Your task to perform on an android device: empty trash in the gmail app Image 0: 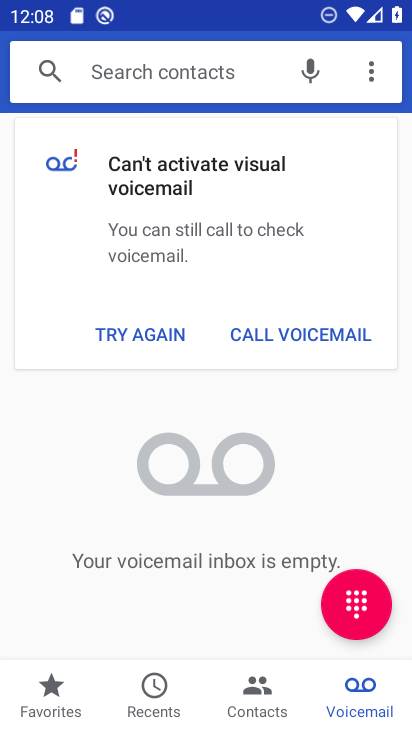
Step 0: press home button
Your task to perform on an android device: empty trash in the gmail app Image 1: 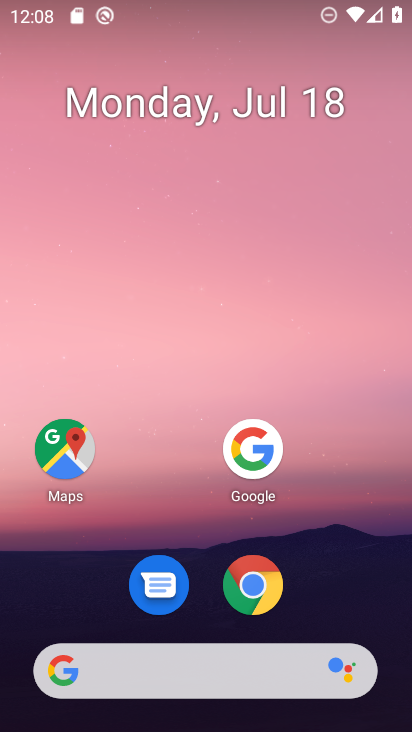
Step 1: drag from (212, 682) to (372, 31)
Your task to perform on an android device: empty trash in the gmail app Image 2: 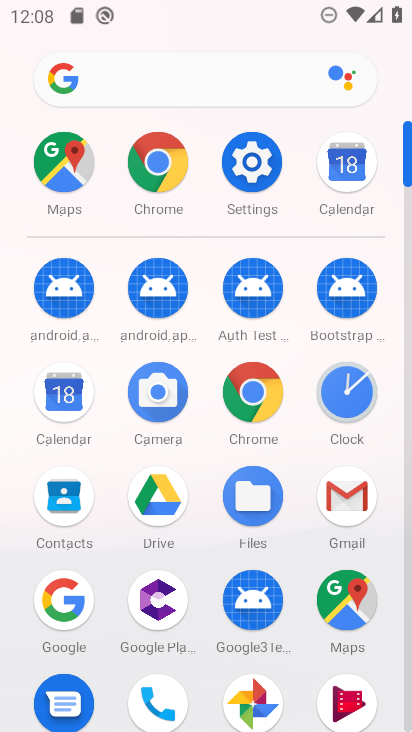
Step 2: click (360, 511)
Your task to perform on an android device: empty trash in the gmail app Image 3: 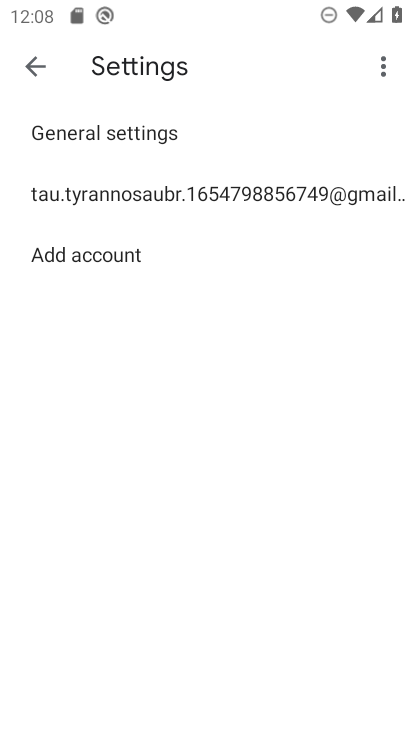
Step 3: click (25, 62)
Your task to perform on an android device: empty trash in the gmail app Image 4: 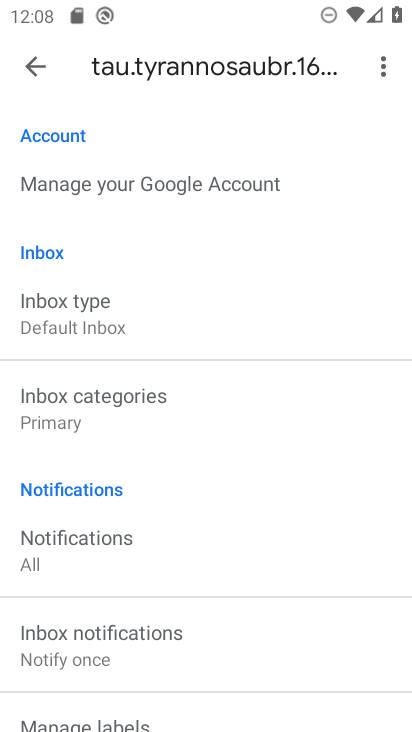
Step 4: click (44, 71)
Your task to perform on an android device: empty trash in the gmail app Image 5: 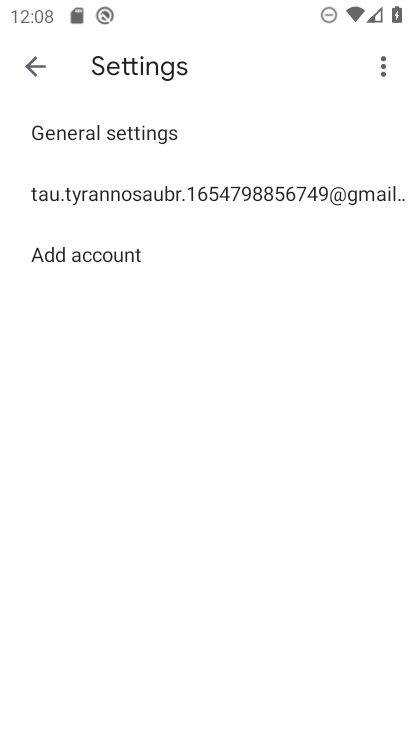
Step 5: click (44, 71)
Your task to perform on an android device: empty trash in the gmail app Image 6: 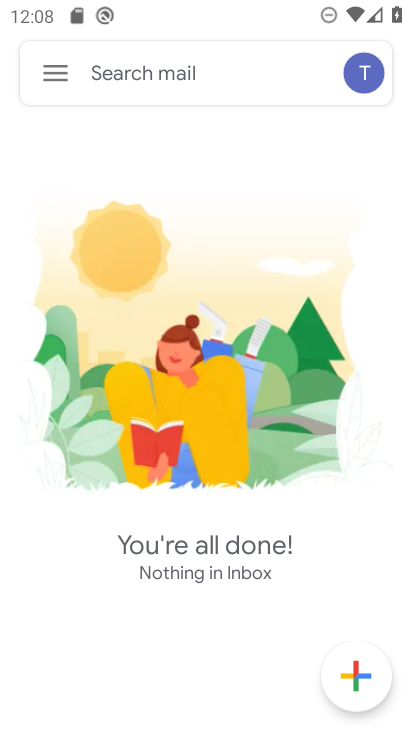
Step 6: click (51, 73)
Your task to perform on an android device: empty trash in the gmail app Image 7: 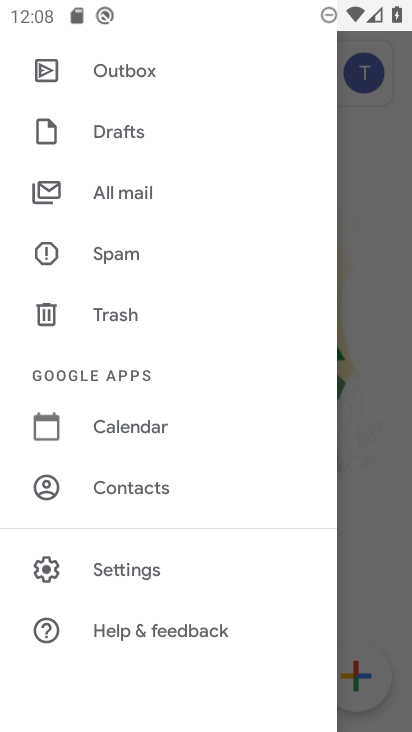
Step 7: click (127, 320)
Your task to perform on an android device: empty trash in the gmail app Image 8: 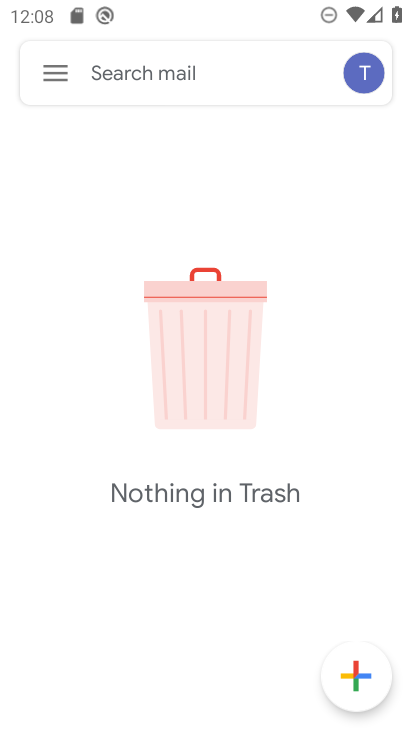
Step 8: task complete